Your task to perform on an android device: Turn off the flashlight Image 0: 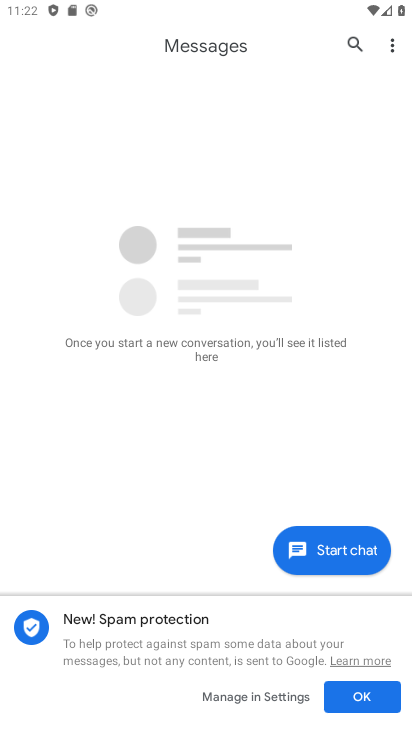
Step 0: press home button
Your task to perform on an android device: Turn off the flashlight Image 1: 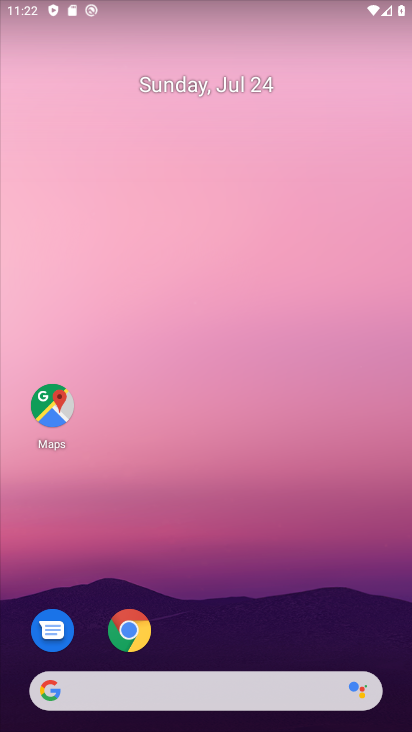
Step 1: task complete